Your task to perform on an android device: delete a single message in the gmail app Image 0: 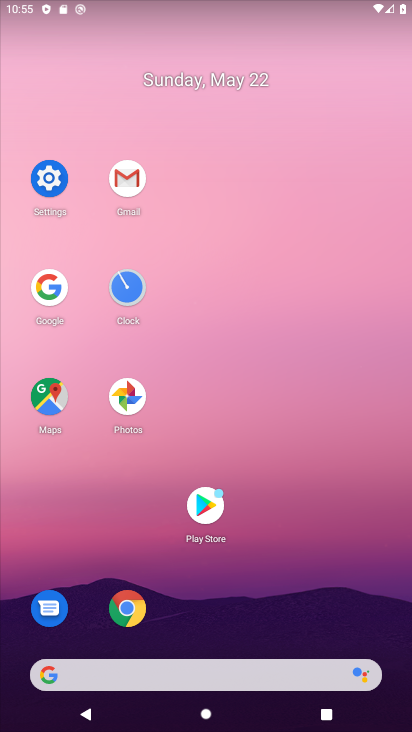
Step 0: click (137, 191)
Your task to perform on an android device: delete a single message in the gmail app Image 1: 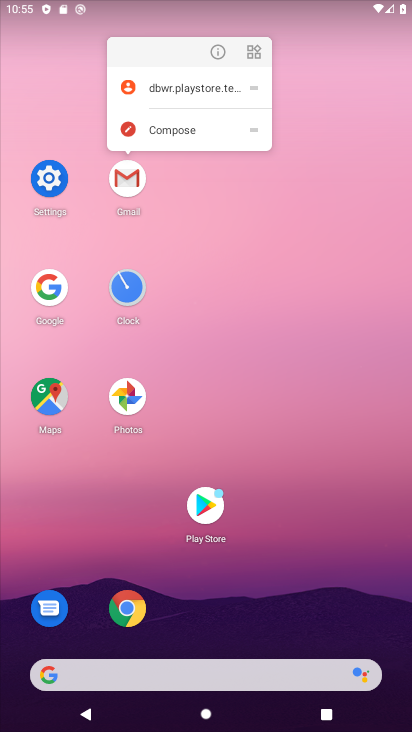
Step 1: click (132, 189)
Your task to perform on an android device: delete a single message in the gmail app Image 2: 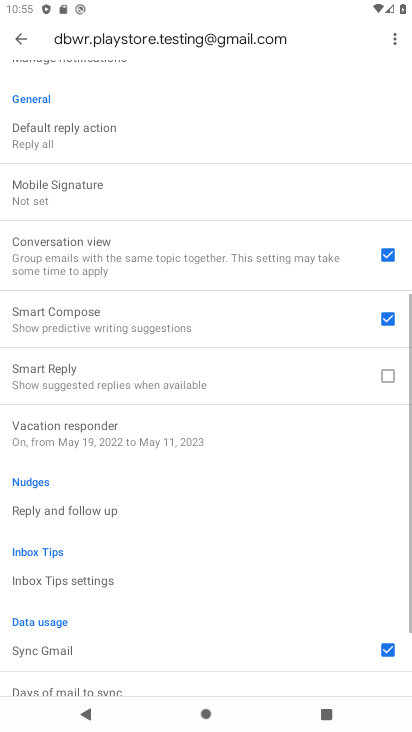
Step 2: click (14, 49)
Your task to perform on an android device: delete a single message in the gmail app Image 3: 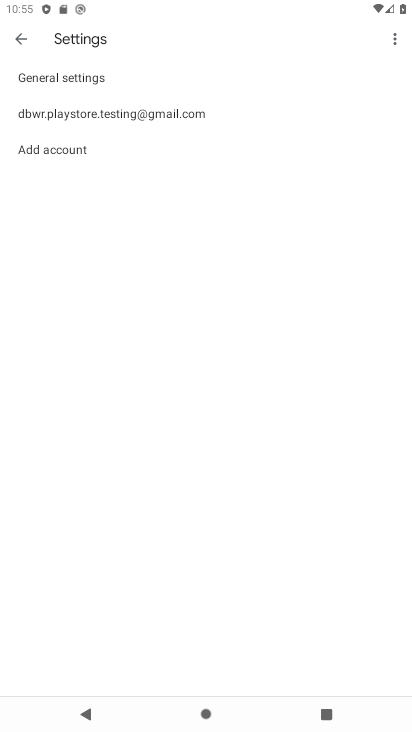
Step 3: click (12, 47)
Your task to perform on an android device: delete a single message in the gmail app Image 4: 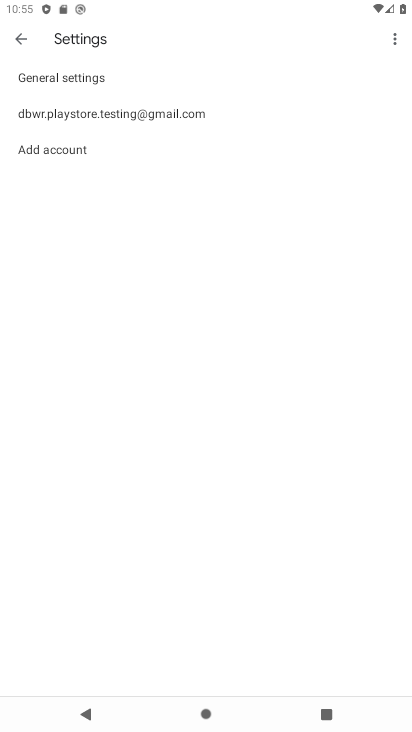
Step 4: click (15, 50)
Your task to perform on an android device: delete a single message in the gmail app Image 5: 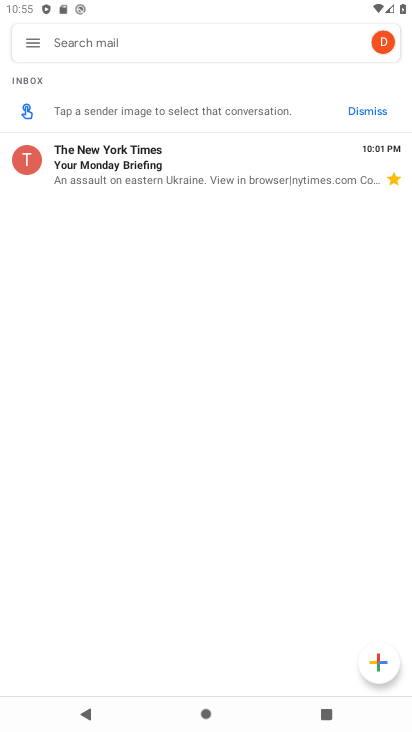
Step 5: click (235, 176)
Your task to perform on an android device: delete a single message in the gmail app Image 6: 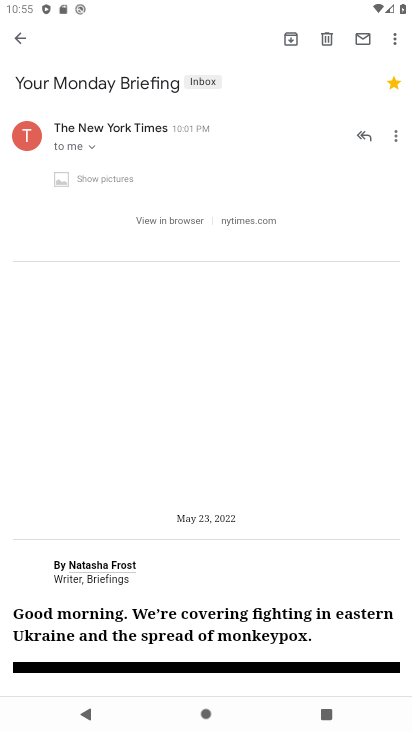
Step 6: click (326, 52)
Your task to perform on an android device: delete a single message in the gmail app Image 7: 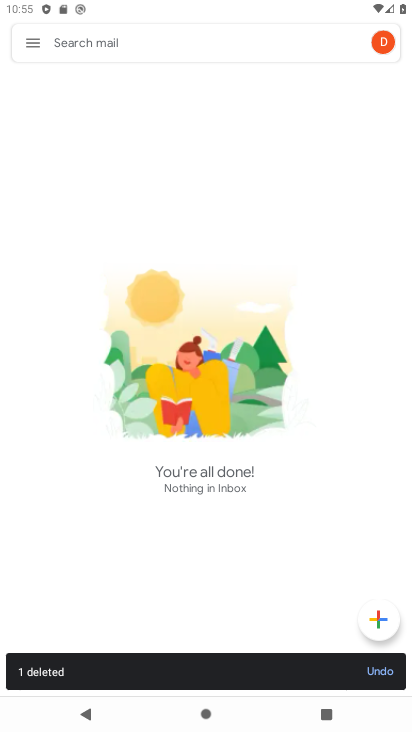
Step 7: task complete